Your task to perform on an android device: Open Google Chrome and open the bookmarks view Image 0: 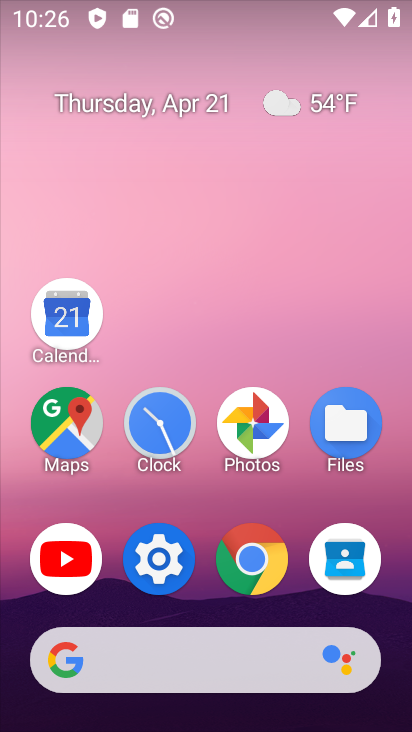
Step 0: click (254, 562)
Your task to perform on an android device: Open Google Chrome and open the bookmarks view Image 1: 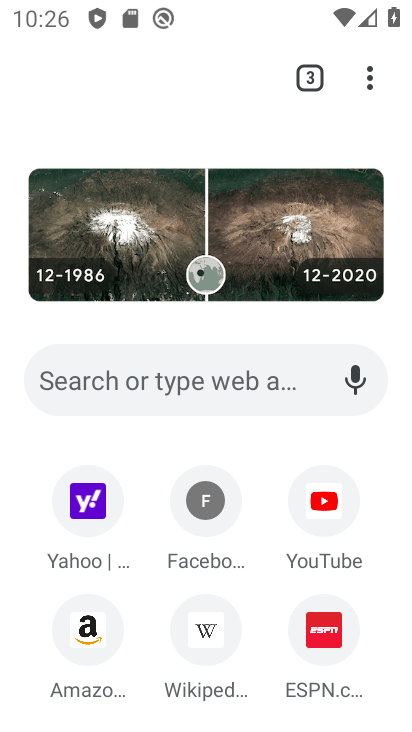
Step 1: click (366, 73)
Your task to perform on an android device: Open Google Chrome and open the bookmarks view Image 2: 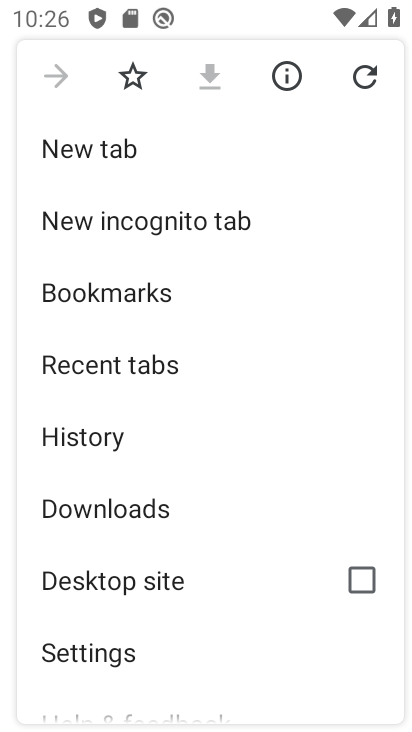
Step 2: click (130, 289)
Your task to perform on an android device: Open Google Chrome and open the bookmarks view Image 3: 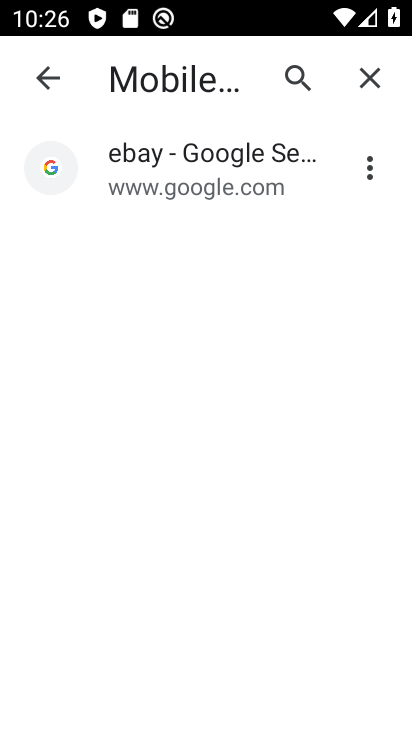
Step 3: click (251, 158)
Your task to perform on an android device: Open Google Chrome and open the bookmarks view Image 4: 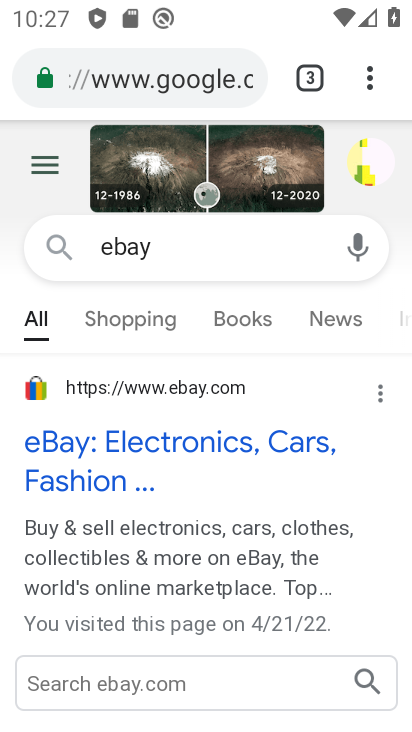
Step 4: task complete